Your task to perform on an android device: turn pop-ups on in chrome Image 0: 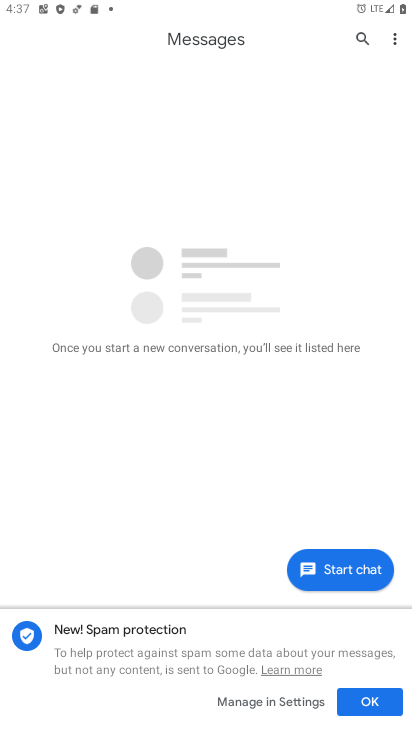
Step 0: press home button
Your task to perform on an android device: turn pop-ups on in chrome Image 1: 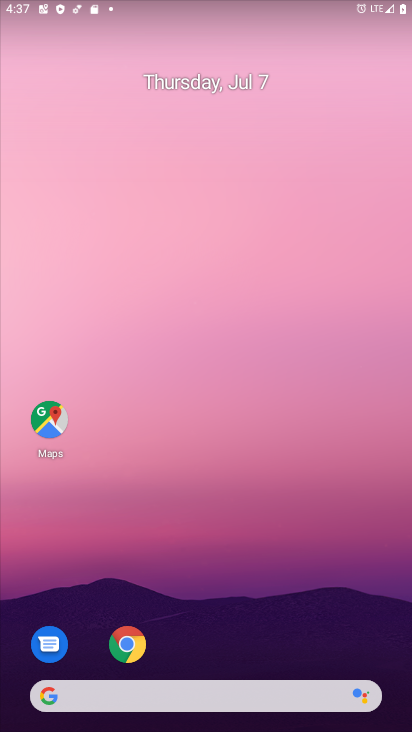
Step 1: click (127, 643)
Your task to perform on an android device: turn pop-ups on in chrome Image 2: 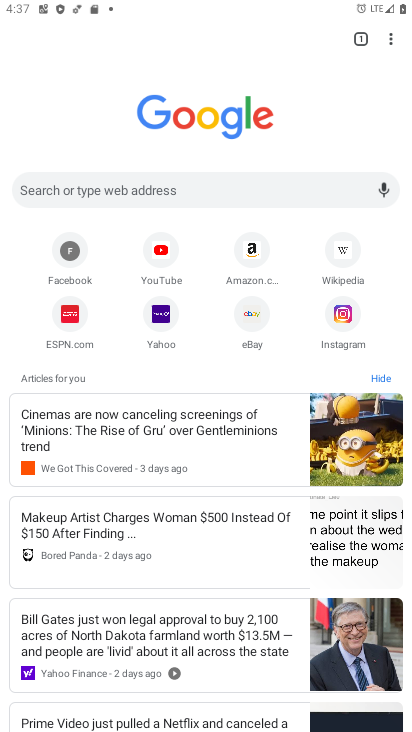
Step 2: click (392, 38)
Your task to perform on an android device: turn pop-ups on in chrome Image 3: 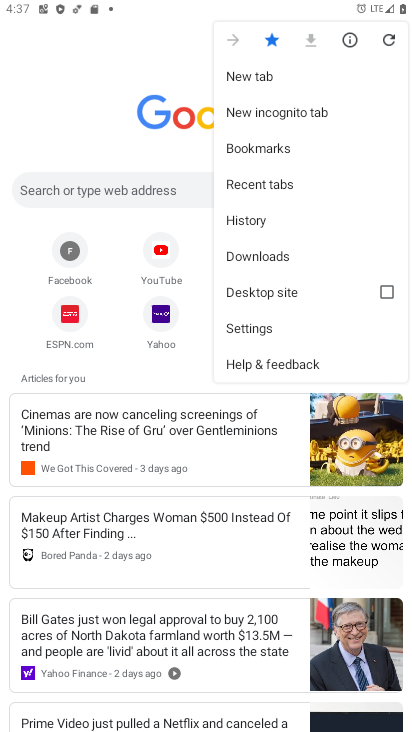
Step 3: click (249, 326)
Your task to perform on an android device: turn pop-ups on in chrome Image 4: 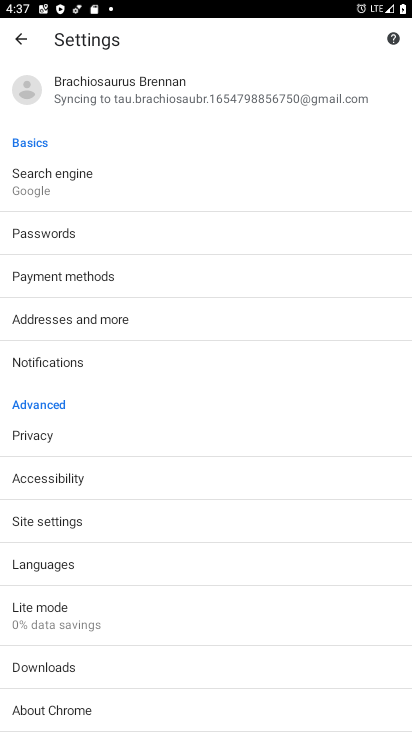
Step 4: click (71, 522)
Your task to perform on an android device: turn pop-ups on in chrome Image 5: 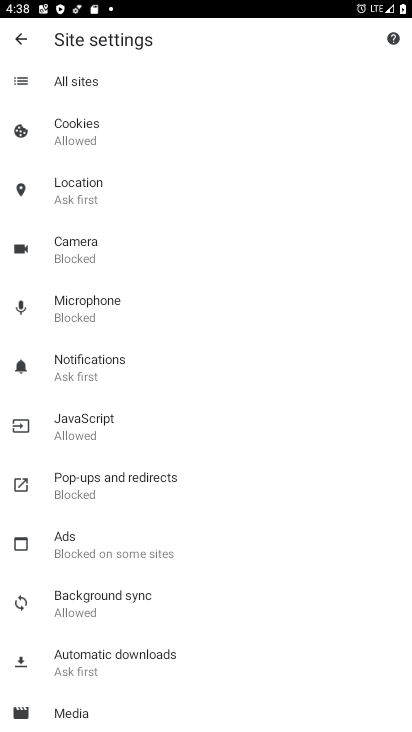
Step 5: click (94, 480)
Your task to perform on an android device: turn pop-ups on in chrome Image 6: 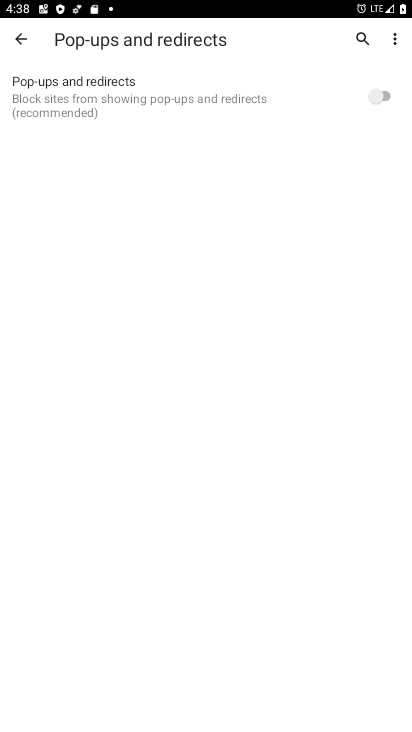
Step 6: click (379, 100)
Your task to perform on an android device: turn pop-ups on in chrome Image 7: 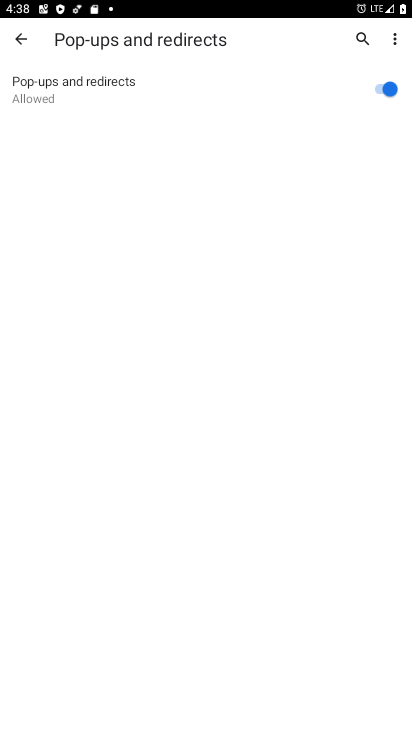
Step 7: task complete